Your task to perform on an android device: Open eBay Image 0: 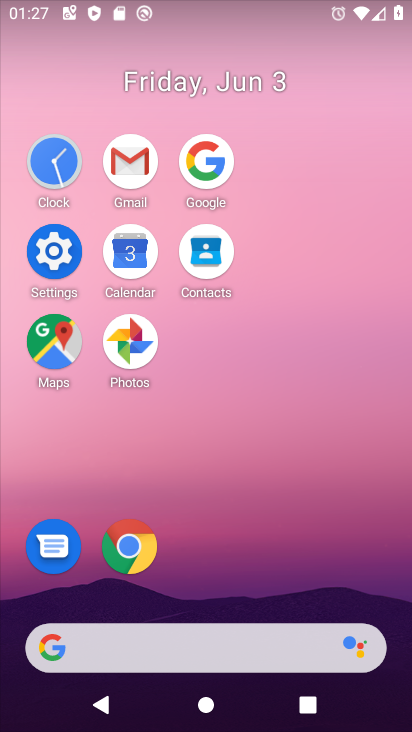
Step 0: click (186, 165)
Your task to perform on an android device: Open eBay Image 1: 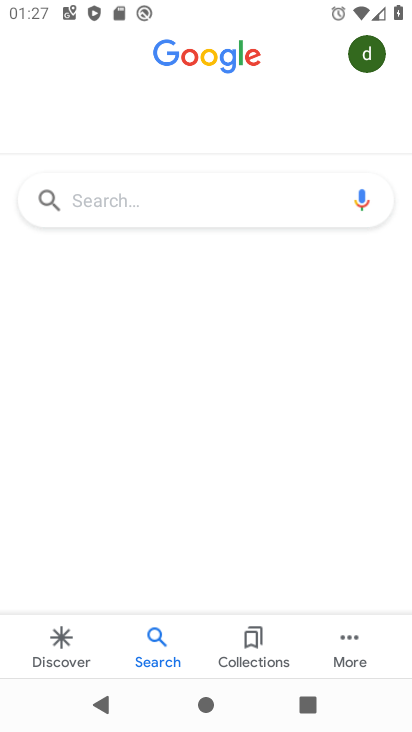
Step 1: click (143, 205)
Your task to perform on an android device: Open eBay Image 2: 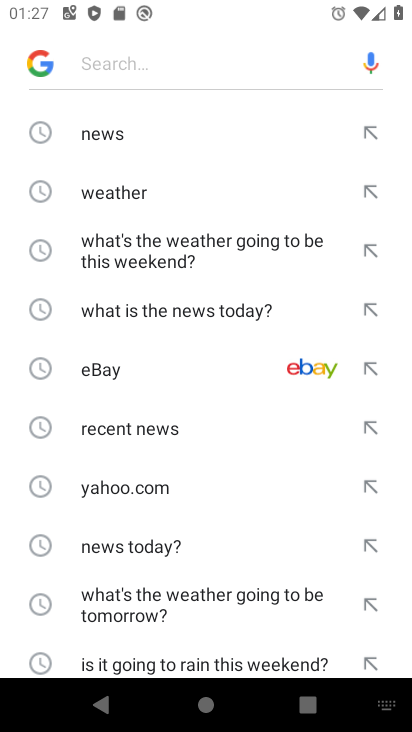
Step 2: click (180, 368)
Your task to perform on an android device: Open eBay Image 3: 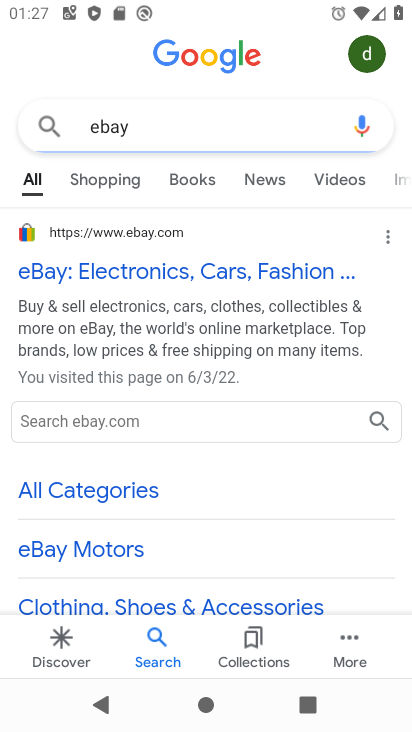
Step 3: task complete